Your task to perform on an android device: empty trash in google photos Image 0: 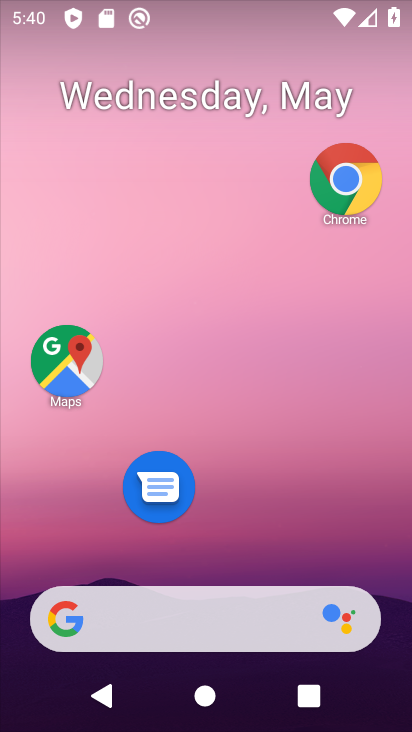
Step 0: click (337, 167)
Your task to perform on an android device: empty trash in google photos Image 1: 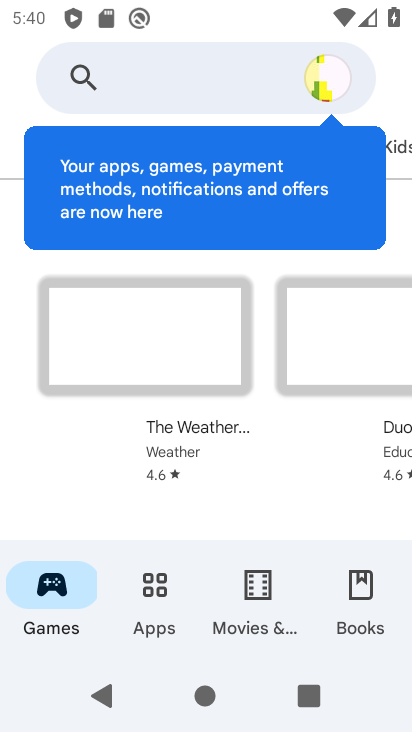
Step 1: press home button
Your task to perform on an android device: empty trash in google photos Image 2: 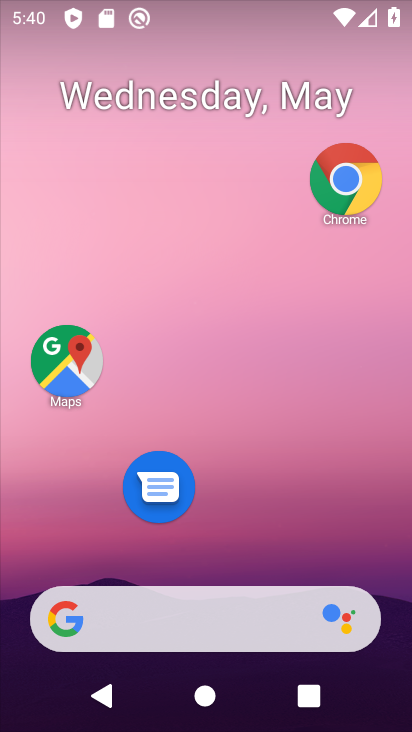
Step 2: drag from (220, 532) to (191, 38)
Your task to perform on an android device: empty trash in google photos Image 3: 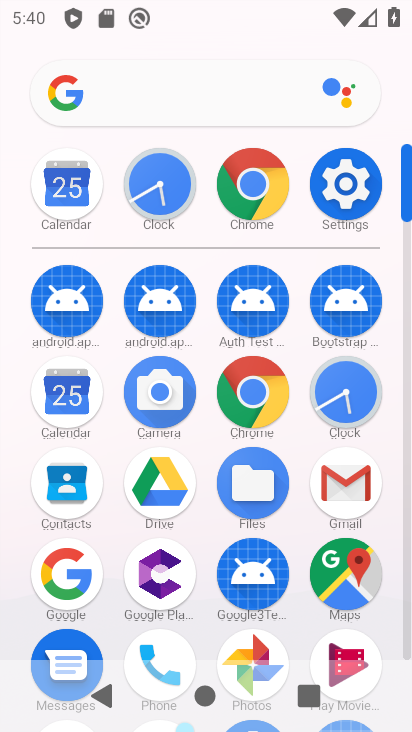
Step 3: click (246, 647)
Your task to perform on an android device: empty trash in google photos Image 4: 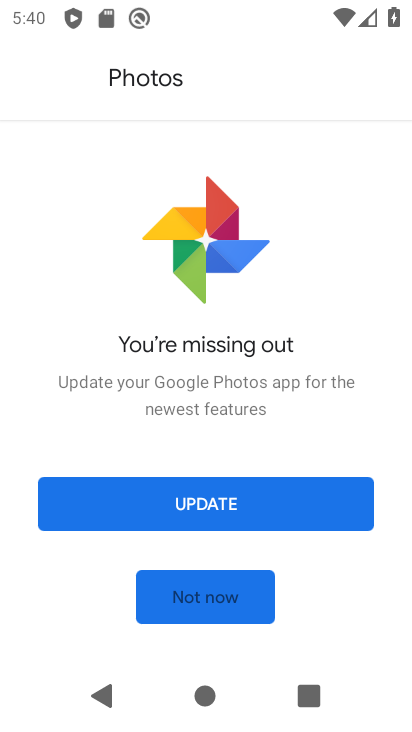
Step 4: click (172, 621)
Your task to perform on an android device: empty trash in google photos Image 5: 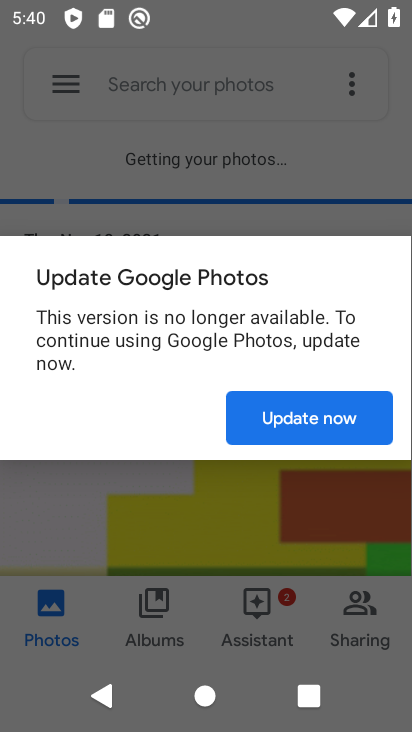
Step 5: click (270, 431)
Your task to perform on an android device: empty trash in google photos Image 6: 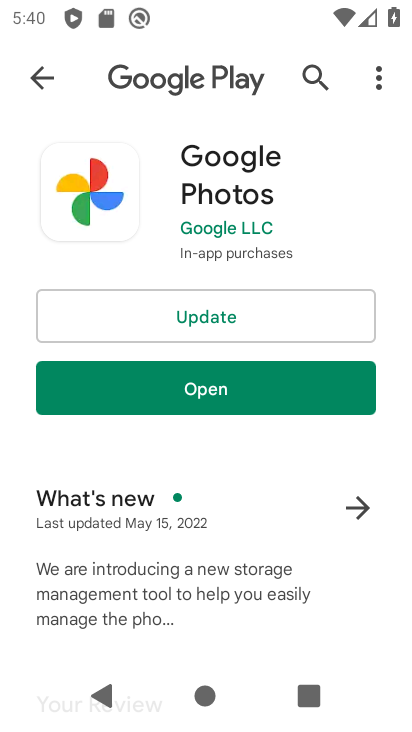
Step 6: click (167, 313)
Your task to perform on an android device: empty trash in google photos Image 7: 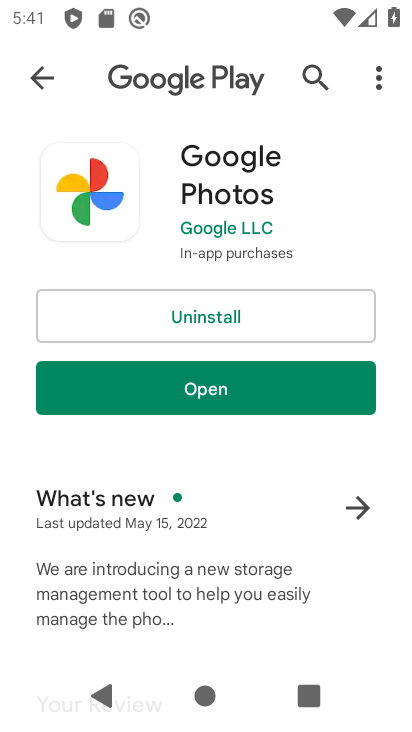
Step 7: click (176, 392)
Your task to perform on an android device: empty trash in google photos Image 8: 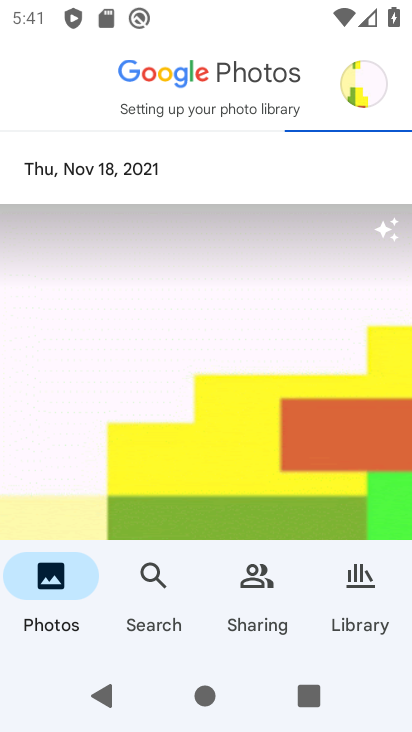
Step 8: click (370, 610)
Your task to perform on an android device: empty trash in google photos Image 9: 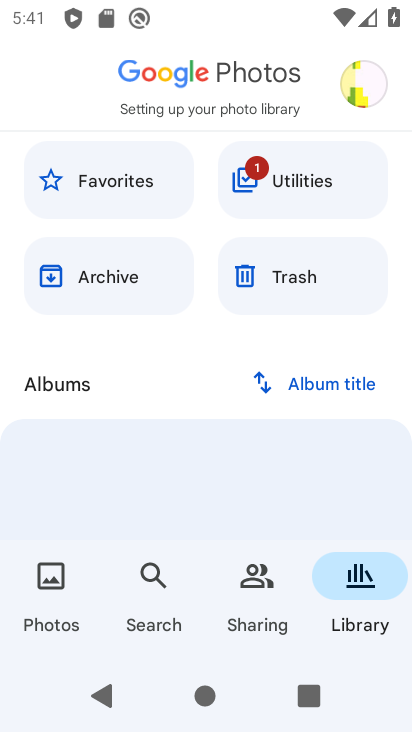
Step 9: click (300, 281)
Your task to perform on an android device: empty trash in google photos Image 10: 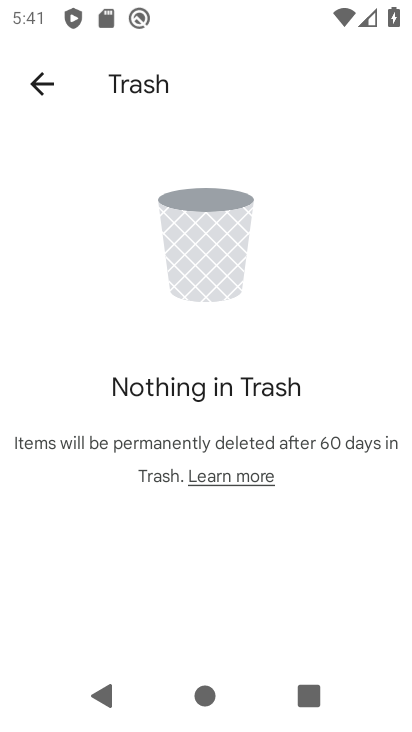
Step 10: task complete